Your task to perform on an android device: change notification settings in the gmail app Image 0: 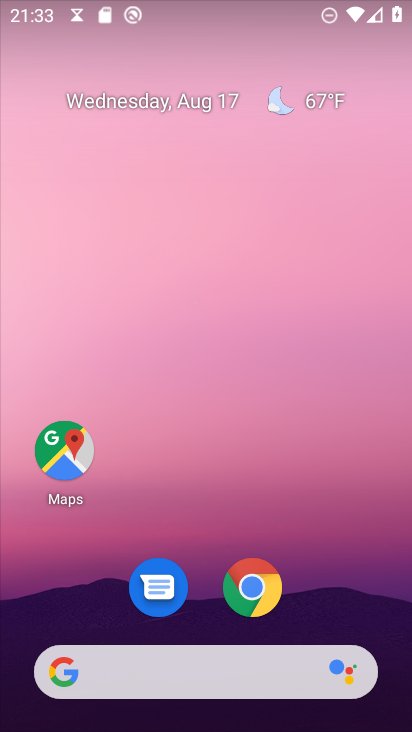
Step 0: drag from (17, 703) to (266, 116)
Your task to perform on an android device: change notification settings in the gmail app Image 1: 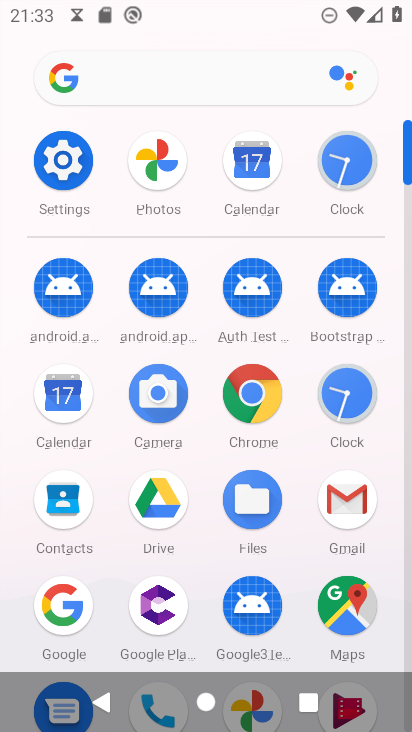
Step 1: click (334, 490)
Your task to perform on an android device: change notification settings in the gmail app Image 2: 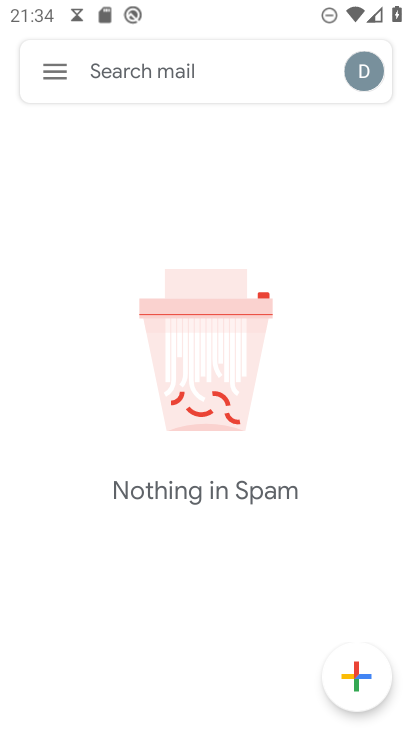
Step 2: click (49, 79)
Your task to perform on an android device: change notification settings in the gmail app Image 3: 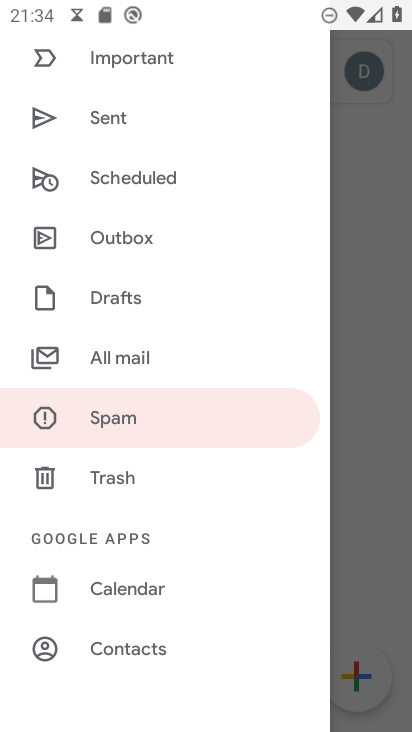
Step 3: drag from (205, 625) to (190, 170)
Your task to perform on an android device: change notification settings in the gmail app Image 4: 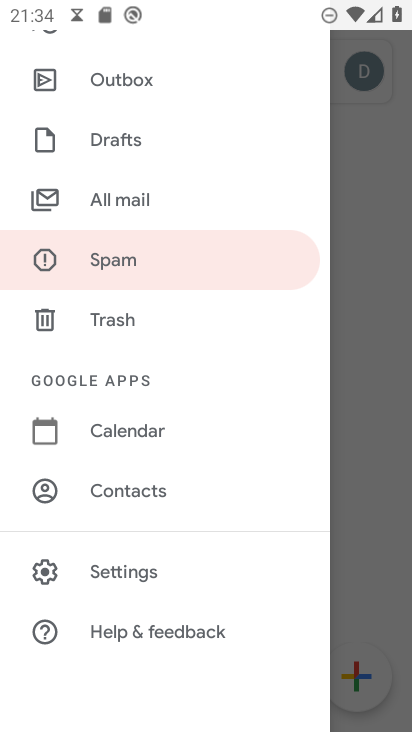
Step 4: click (143, 572)
Your task to perform on an android device: change notification settings in the gmail app Image 5: 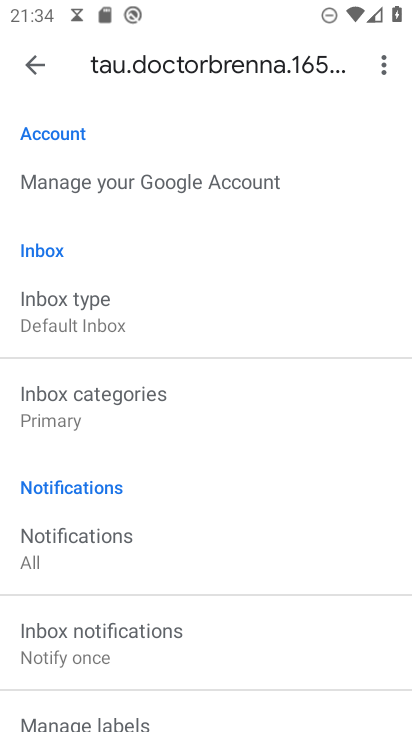
Step 5: drag from (311, 652) to (394, 303)
Your task to perform on an android device: change notification settings in the gmail app Image 6: 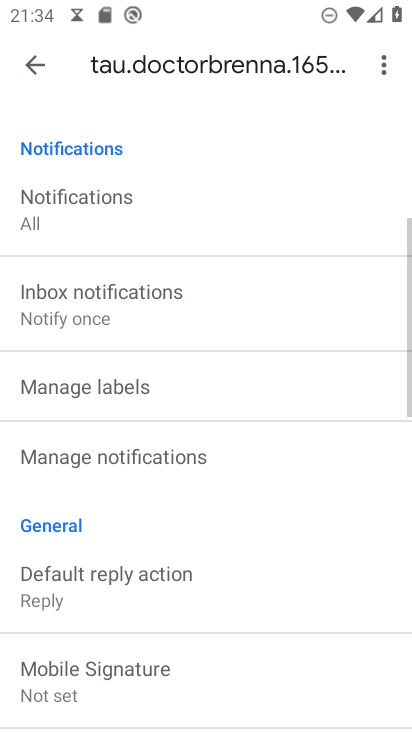
Step 6: drag from (311, 611) to (403, 206)
Your task to perform on an android device: change notification settings in the gmail app Image 7: 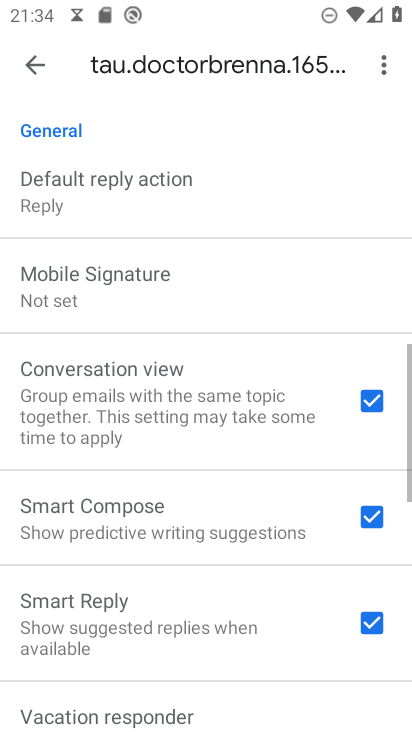
Step 7: drag from (313, 157) to (234, 673)
Your task to perform on an android device: change notification settings in the gmail app Image 8: 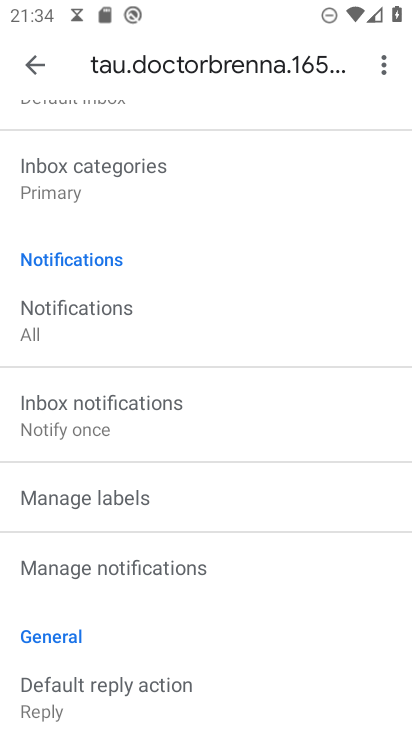
Step 8: click (120, 581)
Your task to perform on an android device: change notification settings in the gmail app Image 9: 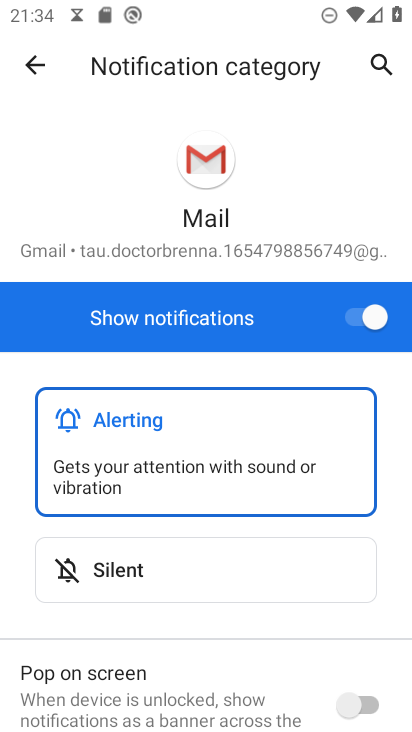
Step 9: click (374, 301)
Your task to perform on an android device: change notification settings in the gmail app Image 10: 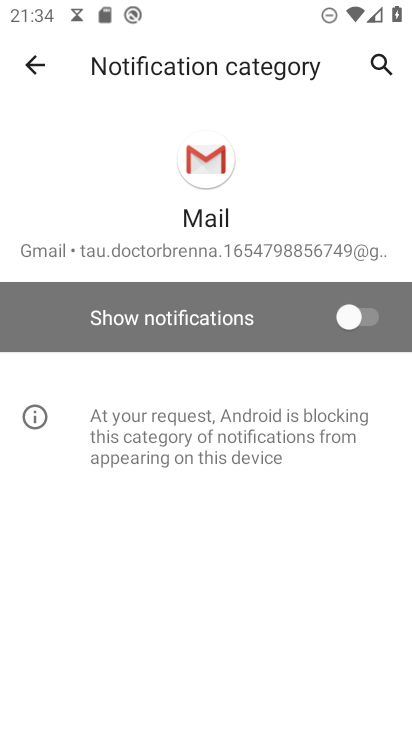
Step 10: task complete